Your task to perform on an android device: What is the capital of India? Image 0: 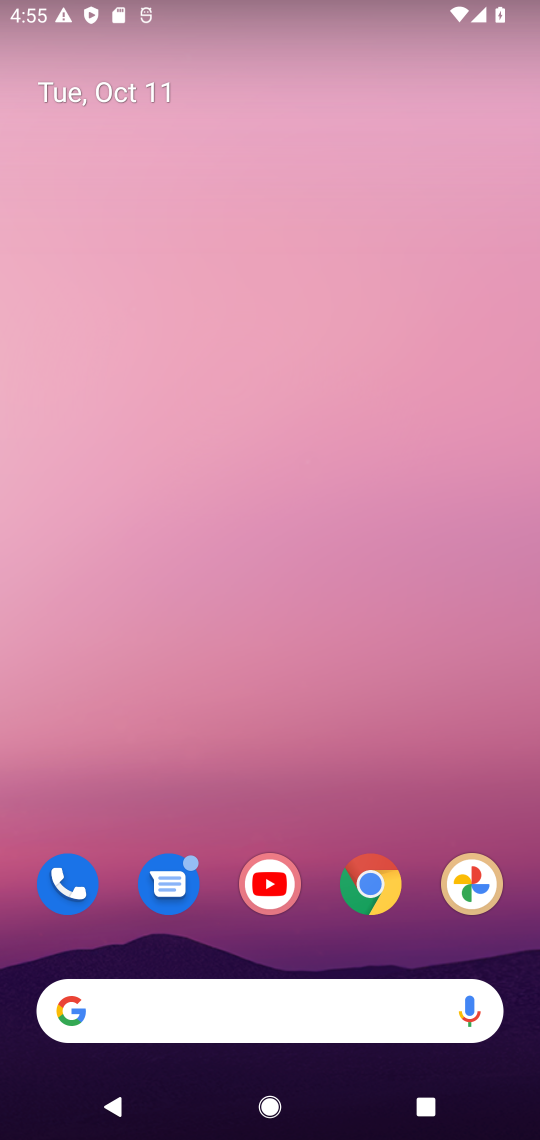
Step 0: drag from (321, 954) to (208, 13)
Your task to perform on an android device: What is the capital of India? Image 1: 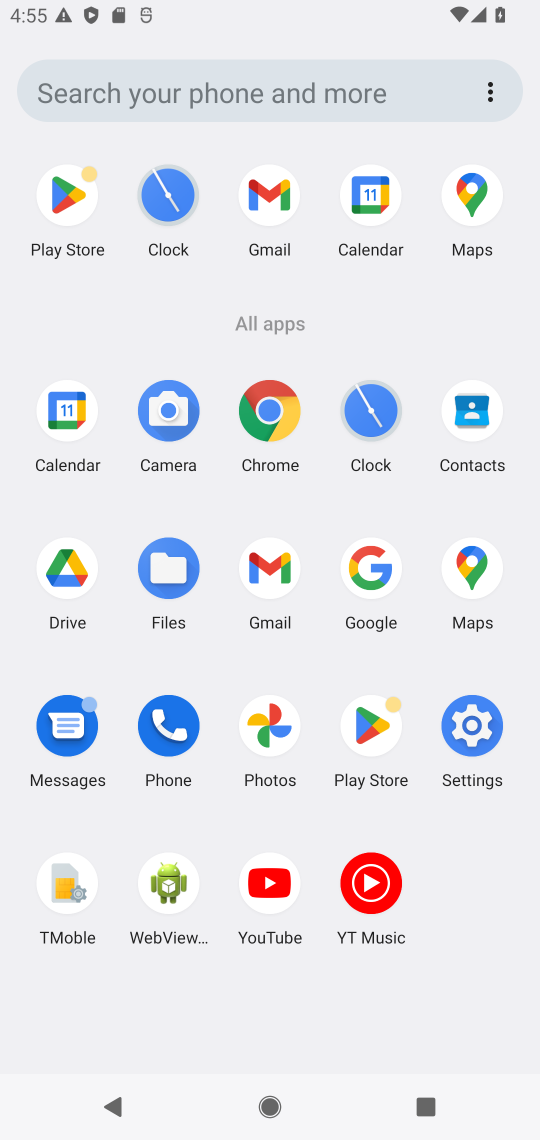
Step 1: click (274, 415)
Your task to perform on an android device: What is the capital of India? Image 2: 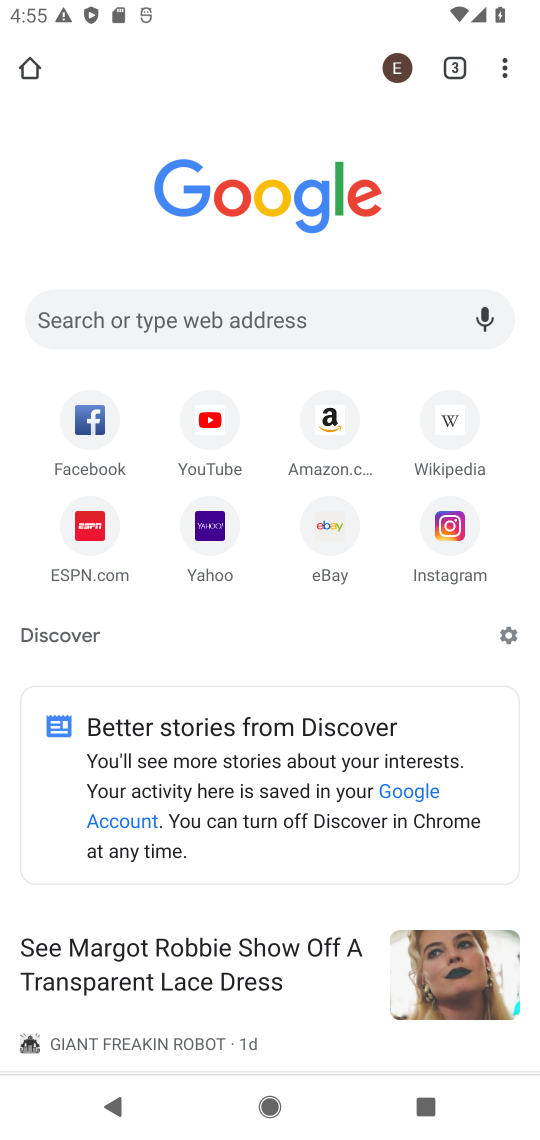
Step 2: click (310, 302)
Your task to perform on an android device: What is the capital of India? Image 3: 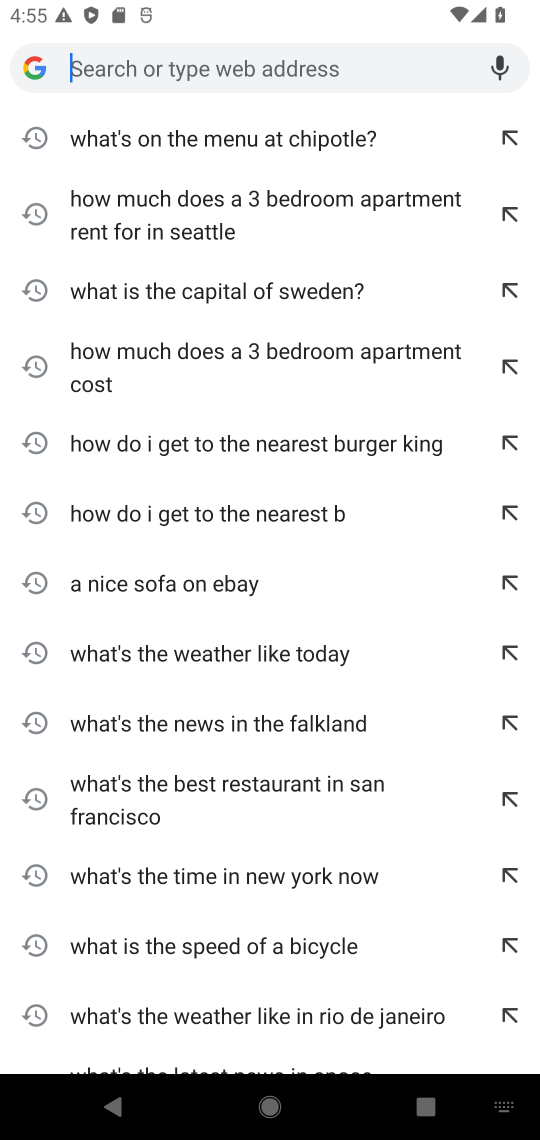
Step 3: type "What is the capital of India?"
Your task to perform on an android device: What is the capital of India? Image 4: 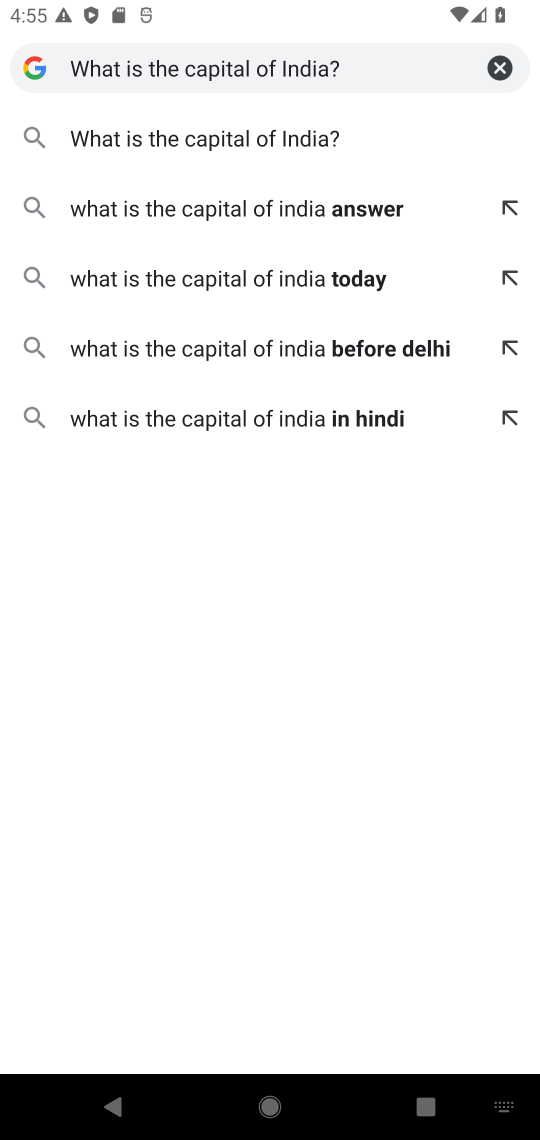
Step 4: click (277, 129)
Your task to perform on an android device: What is the capital of India? Image 5: 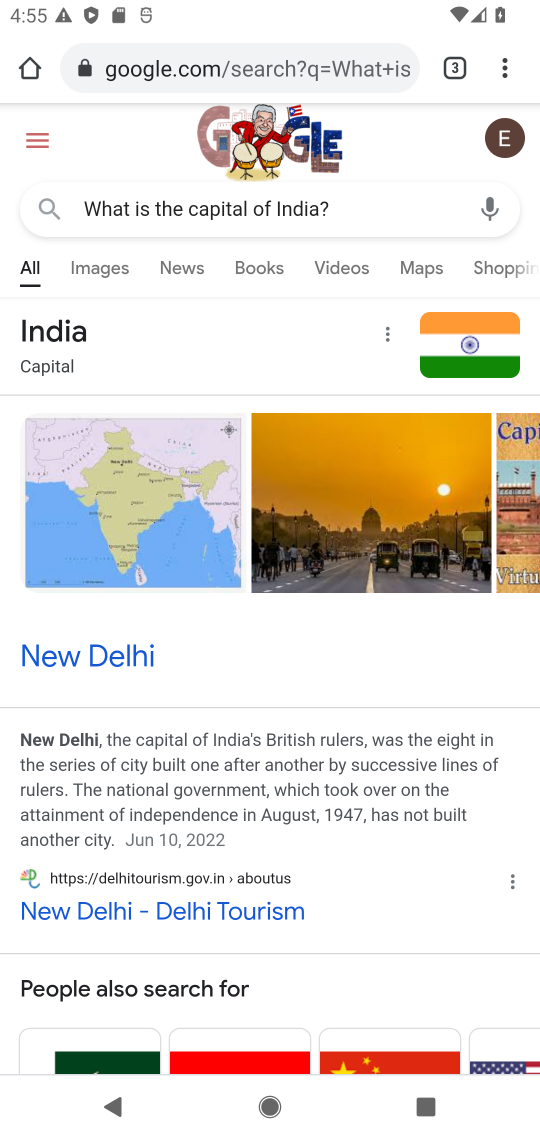
Step 5: task complete